Your task to perform on an android device: manage bookmarks in the chrome app Image 0: 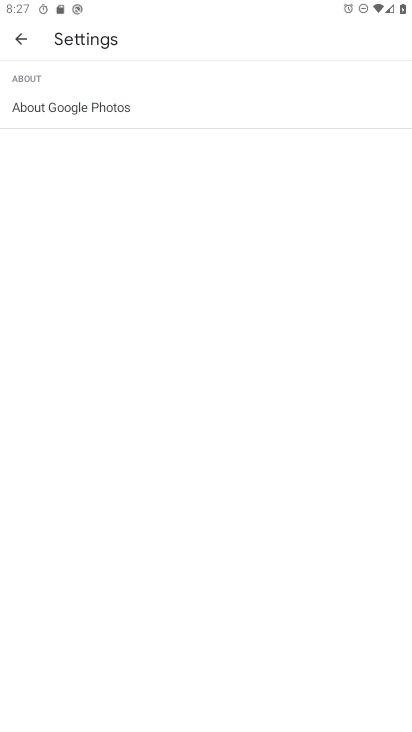
Step 0: press home button
Your task to perform on an android device: manage bookmarks in the chrome app Image 1: 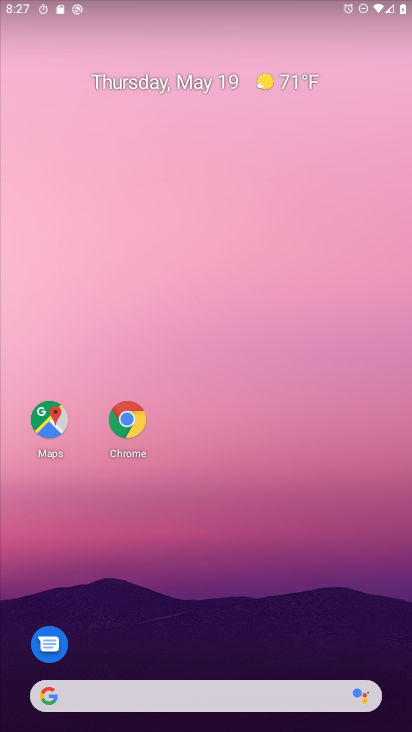
Step 1: click (139, 411)
Your task to perform on an android device: manage bookmarks in the chrome app Image 2: 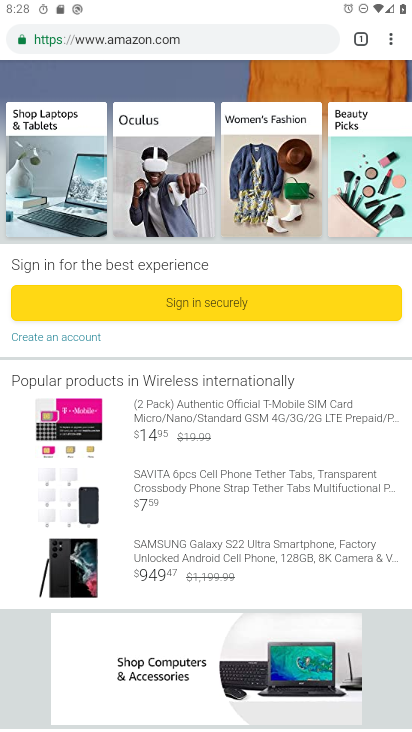
Step 2: click (392, 36)
Your task to perform on an android device: manage bookmarks in the chrome app Image 3: 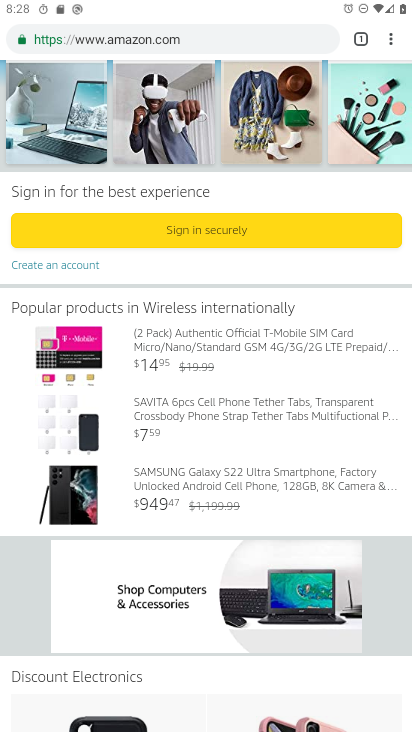
Step 3: click (391, 42)
Your task to perform on an android device: manage bookmarks in the chrome app Image 4: 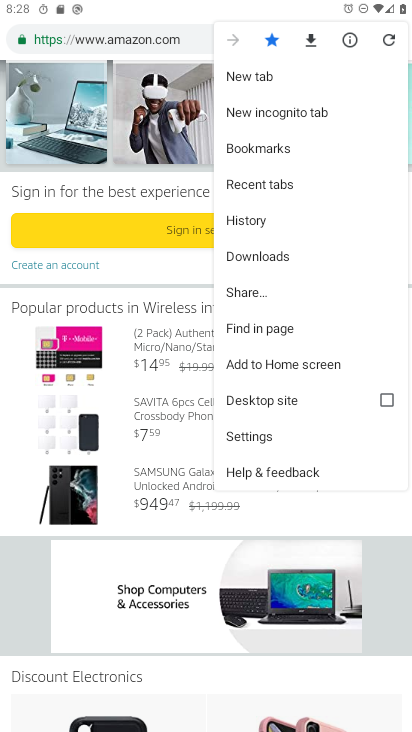
Step 4: click (242, 143)
Your task to perform on an android device: manage bookmarks in the chrome app Image 5: 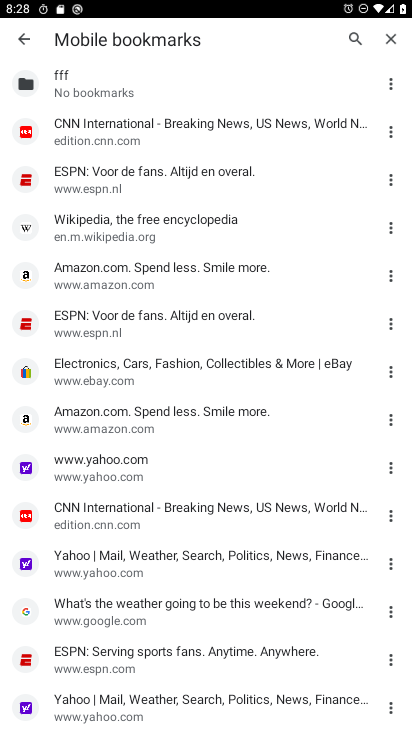
Step 5: drag from (93, 83) to (56, 83)
Your task to perform on an android device: manage bookmarks in the chrome app Image 6: 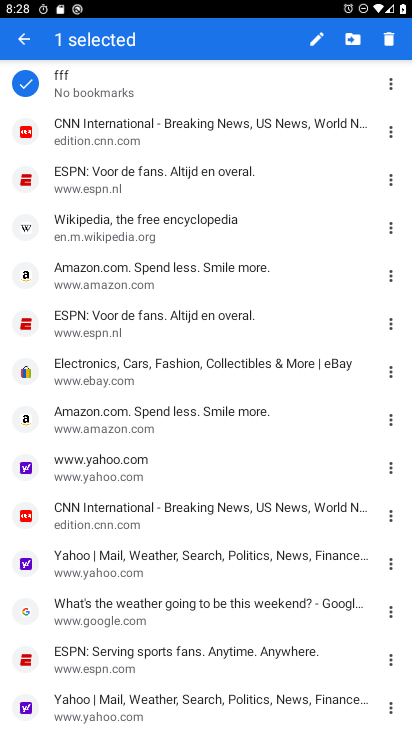
Step 6: click (397, 37)
Your task to perform on an android device: manage bookmarks in the chrome app Image 7: 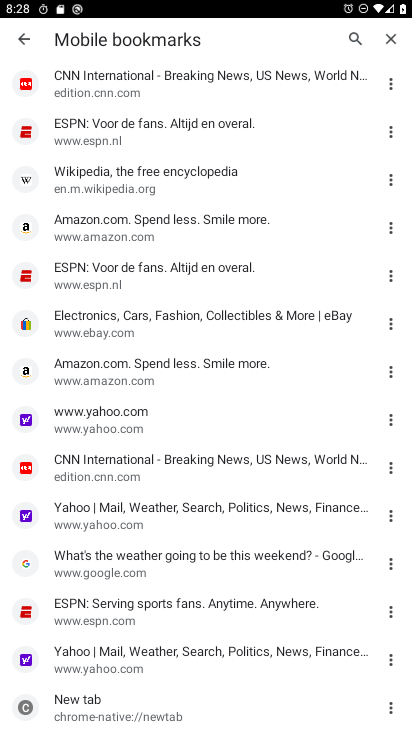
Step 7: click (65, 277)
Your task to perform on an android device: manage bookmarks in the chrome app Image 8: 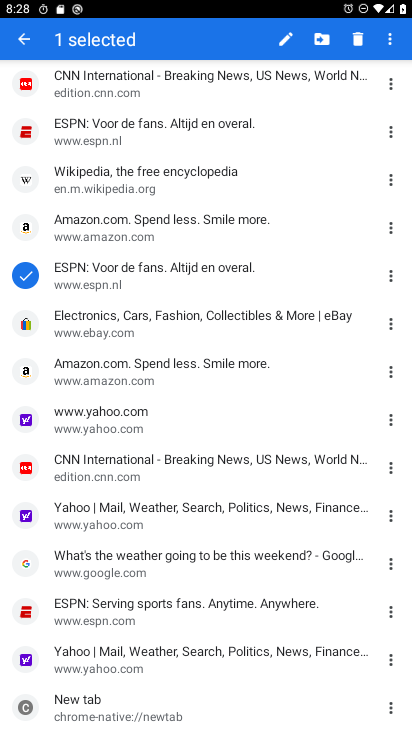
Step 8: click (359, 35)
Your task to perform on an android device: manage bookmarks in the chrome app Image 9: 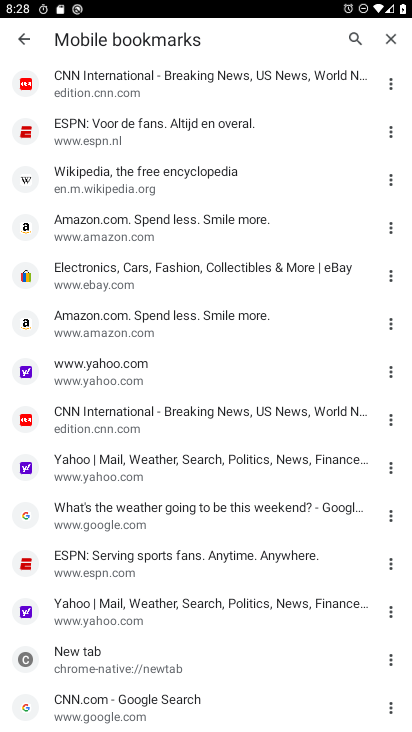
Step 9: click (131, 416)
Your task to perform on an android device: manage bookmarks in the chrome app Image 10: 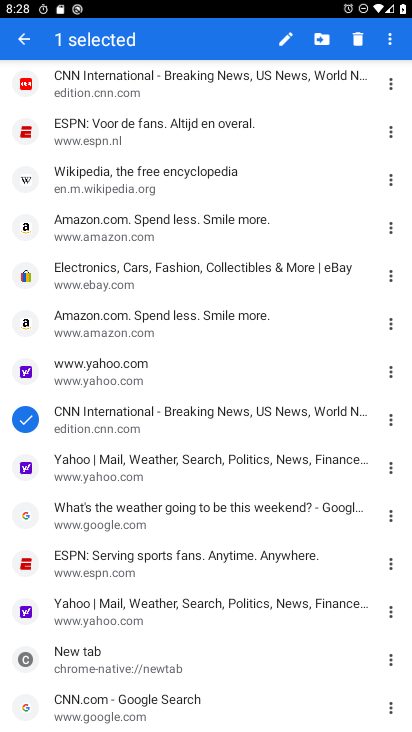
Step 10: click (359, 36)
Your task to perform on an android device: manage bookmarks in the chrome app Image 11: 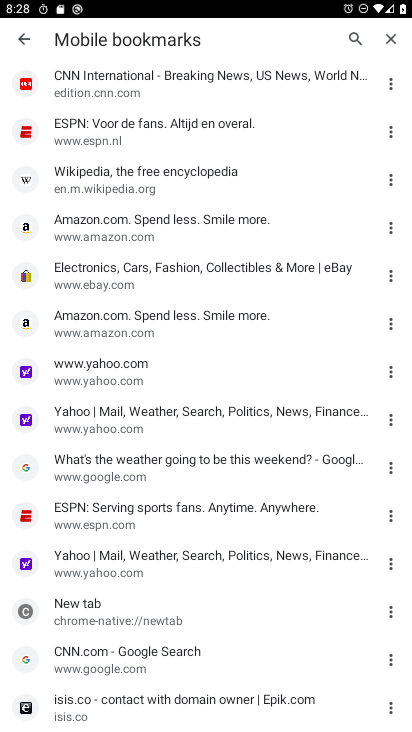
Step 11: drag from (86, 606) to (97, 369)
Your task to perform on an android device: manage bookmarks in the chrome app Image 12: 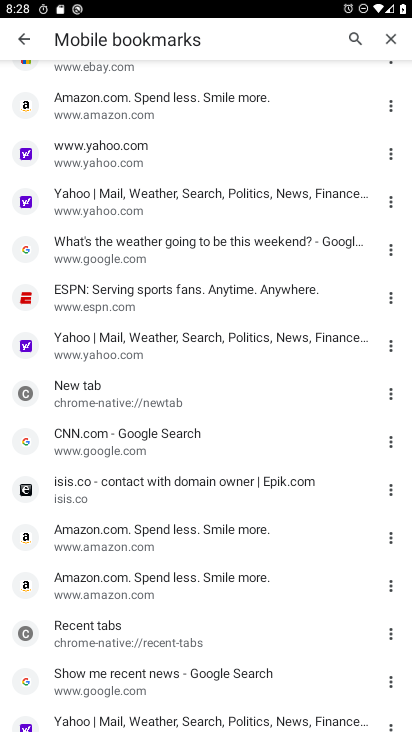
Step 12: click (119, 345)
Your task to perform on an android device: manage bookmarks in the chrome app Image 13: 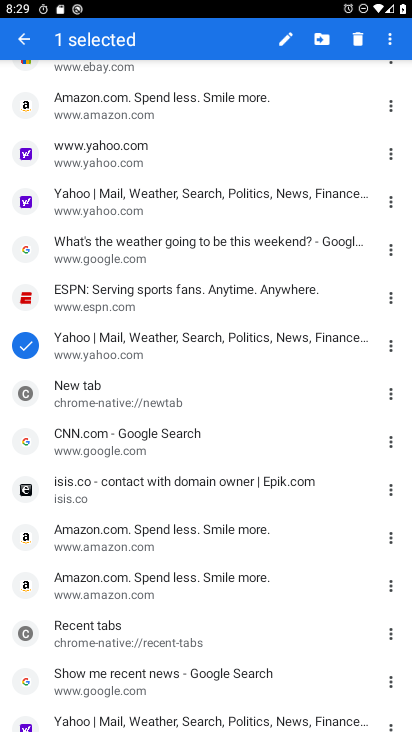
Step 13: task complete